Your task to perform on an android device: turn off notifications in google photos Image 0: 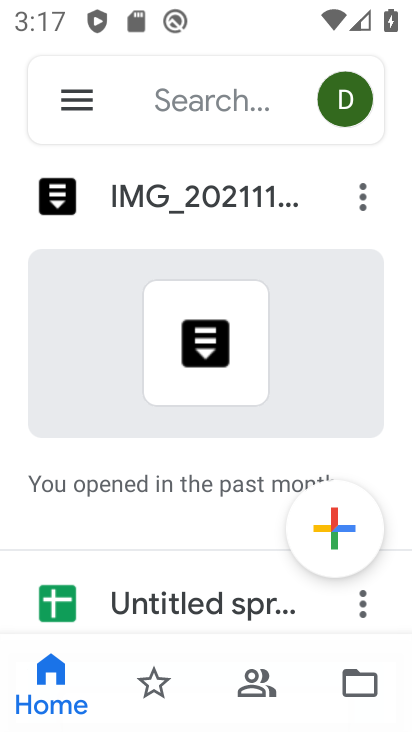
Step 0: press home button
Your task to perform on an android device: turn off notifications in google photos Image 1: 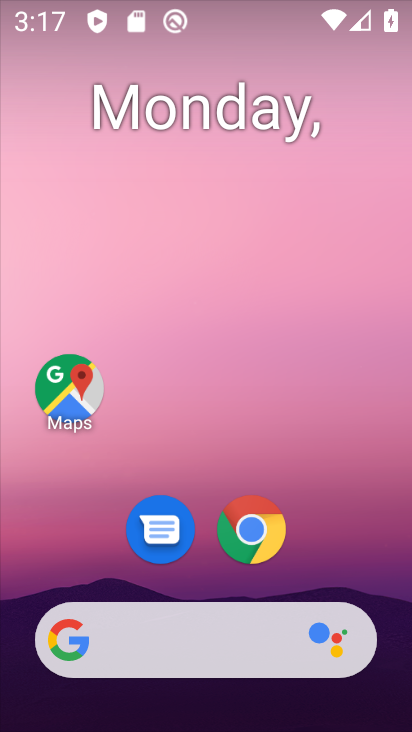
Step 1: drag from (204, 537) to (270, 153)
Your task to perform on an android device: turn off notifications in google photos Image 2: 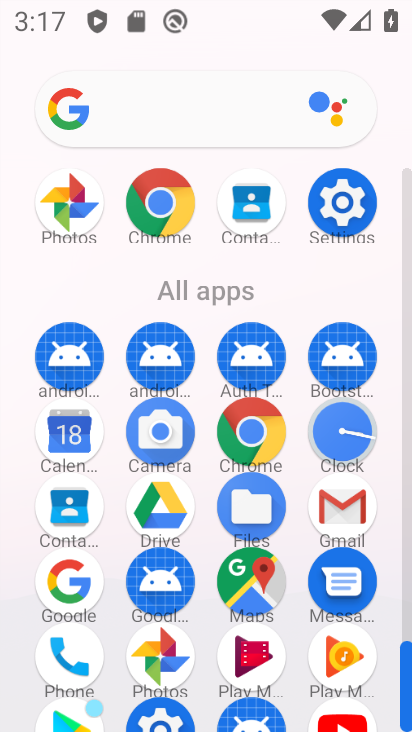
Step 2: click (179, 660)
Your task to perform on an android device: turn off notifications in google photos Image 3: 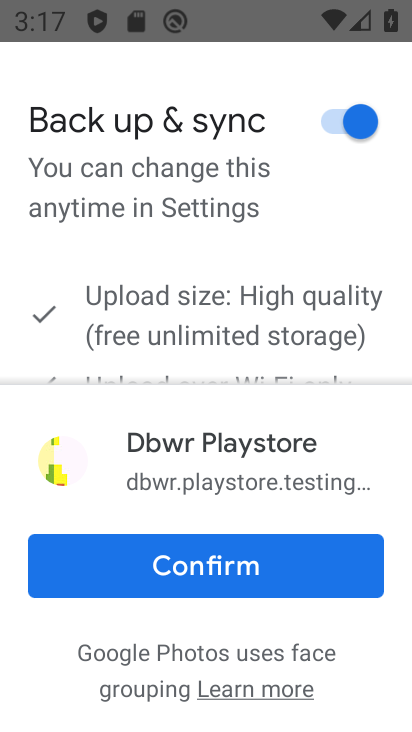
Step 3: click (229, 576)
Your task to perform on an android device: turn off notifications in google photos Image 4: 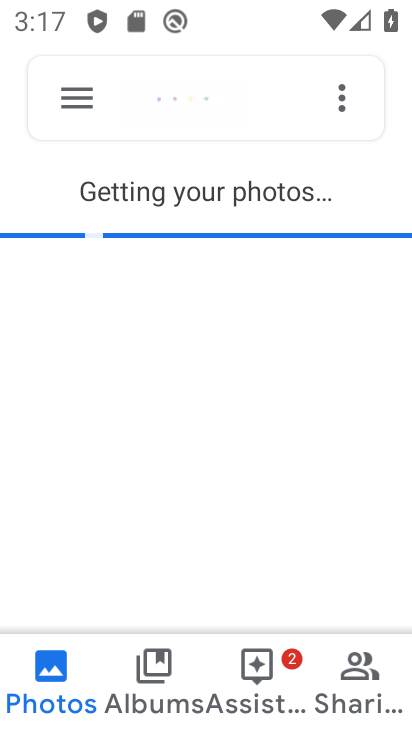
Step 4: click (75, 94)
Your task to perform on an android device: turn off notifications in google photos Image 5: 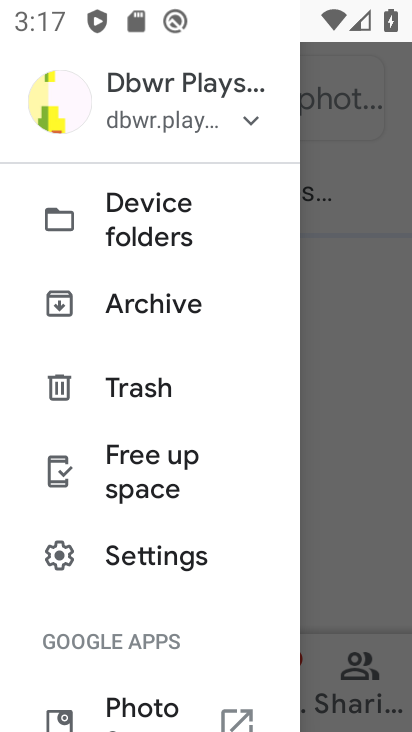
Step 5: click (150, 578)
Your task to perform on an android device: turn off notifications in google photos Image 6: 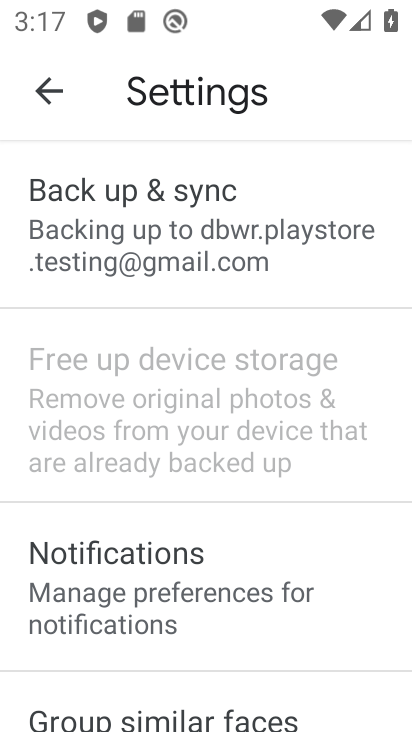
Step 6: click (131, 592)
Your task to perform on an android device: turn off notifications in google photos Image 7: 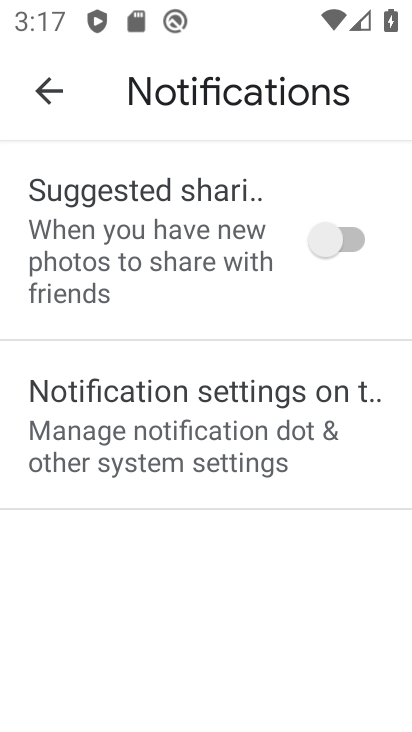
Step 7: click (137, 442)
Your task to perform on an android device: turn off notifications in google photos Image 8: 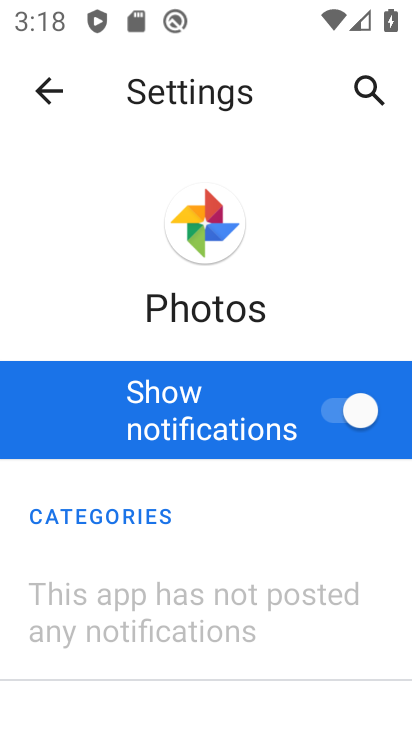
Step 8: click (275, 417)
Your task to perform on an android device: turn off notifications in google photos Image 9: 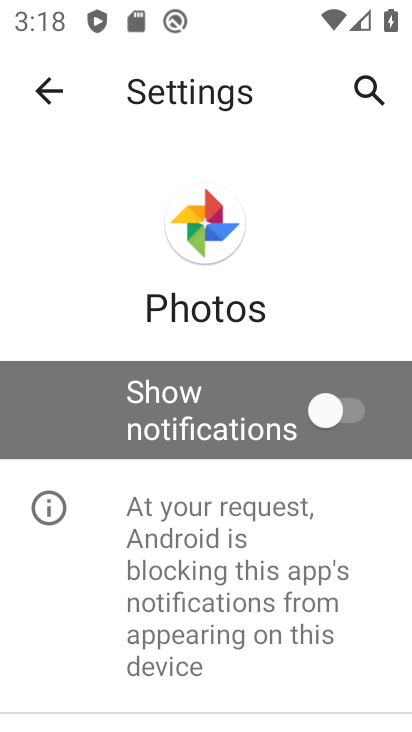
Step 9: task complete